Your task to perform on an android device: Go to notification settings Image 0: 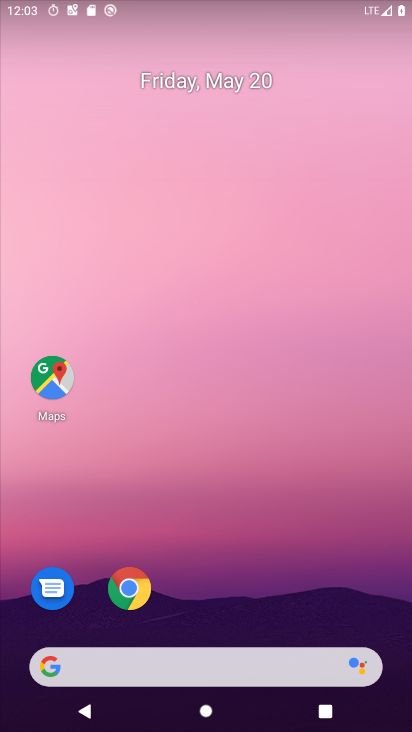
Step 0: drag from (264, 662) to (374, 154)
Your task to perform on an android device: Go to notification settings Image 1: 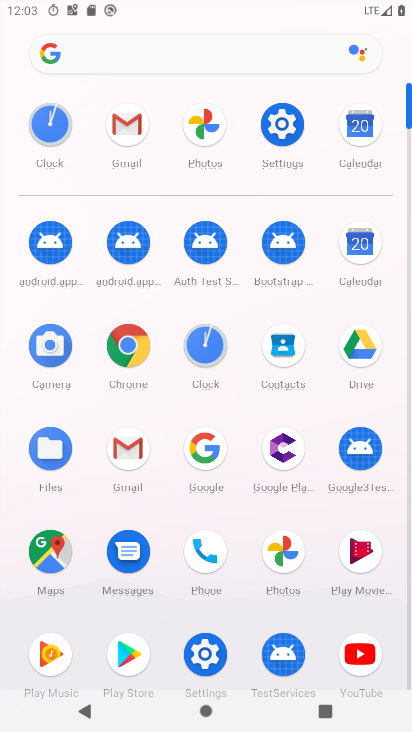
Step 1: click (275, 131)
Your task to perform on an android device: Go to notification settings Image 2: 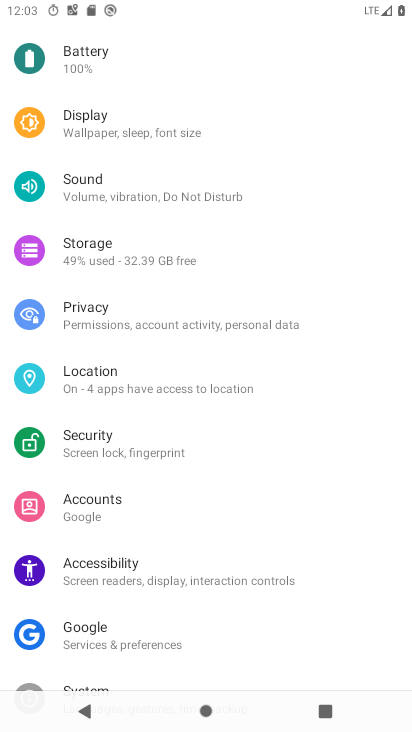
Step 2: drag from (256, 69) to (226, 466)
Your task to perform on an android device: Go to notification settings Image 3: 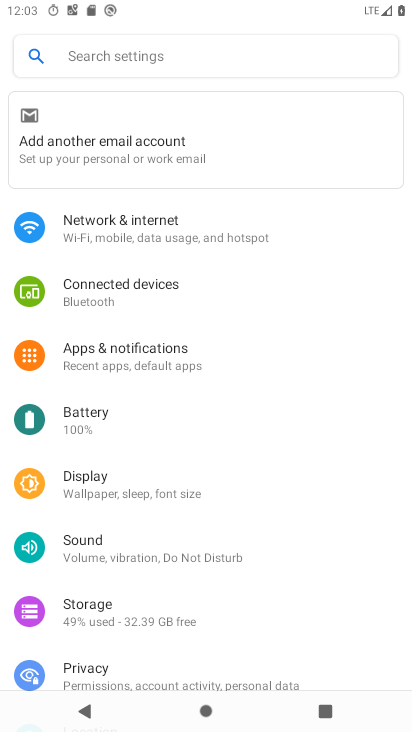
Step 3: click (174, 358)
Your task to perform on an android device: Go to notification settings Image 4: 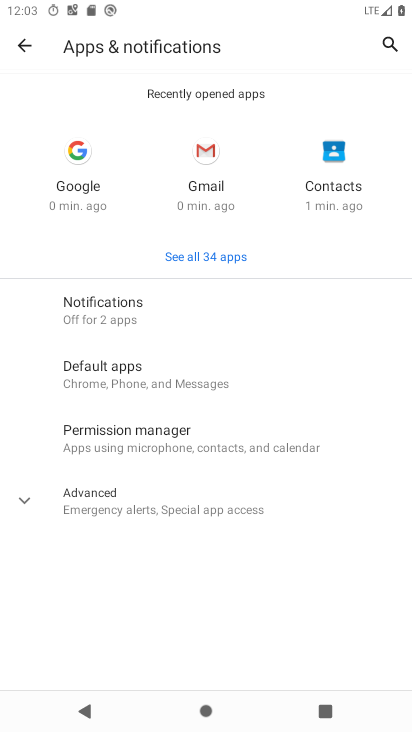
Step 4: click (125, 319)
Your task to perform on an android device: Go to notification settings Image 5: 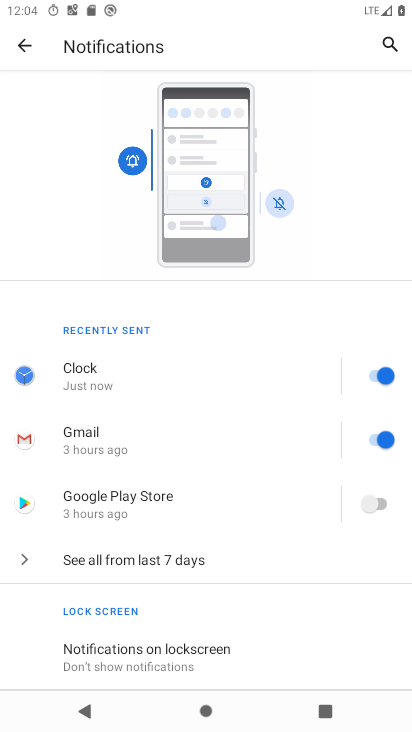
Step 5: task complete